Your task to perform on an android device: Open the calendar app, open the side menu, and click the "Day" option Image 0: 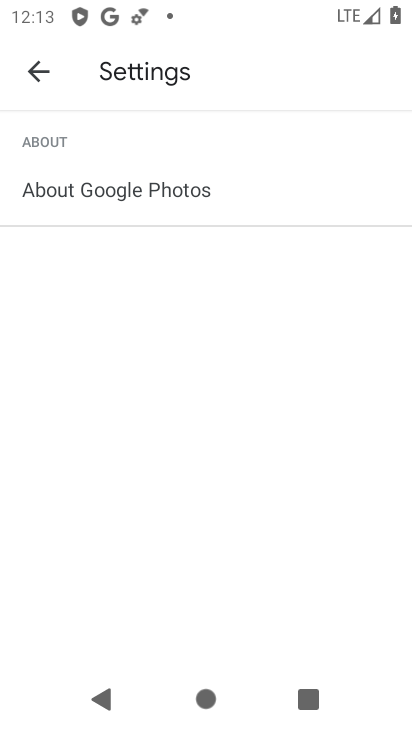
Step 0: press home button
Your task to perform on an android device: Open the calendar app, open the side menu, and click the "Day" option Image 1: 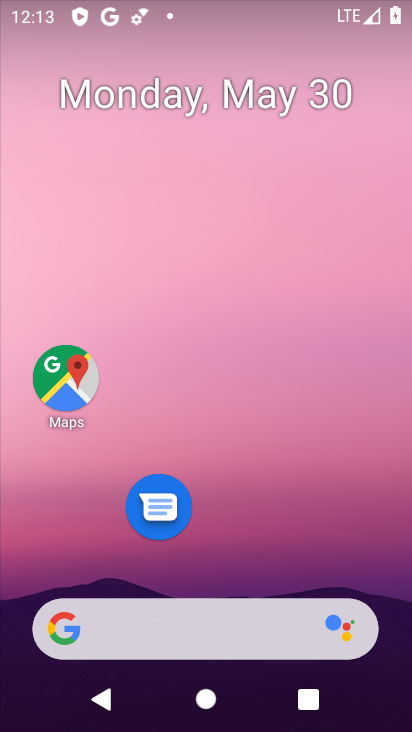
Step 1: drag from (297, 515) to (409, 432)
Your task to perform on an android device: Open the calendar app, open the side menu, and click the "Day" option Image 2: 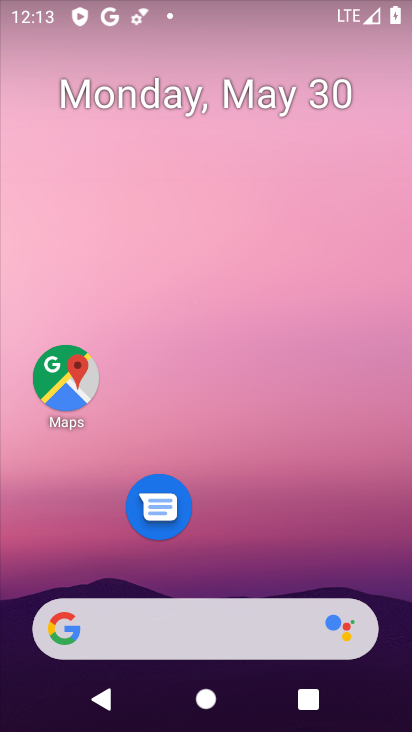
Step 2: drag from (264, 563) to (304, 68)
Your task to perform on an android device: Open the calendar app, open the side menu, and click the "Day" option Image 3: 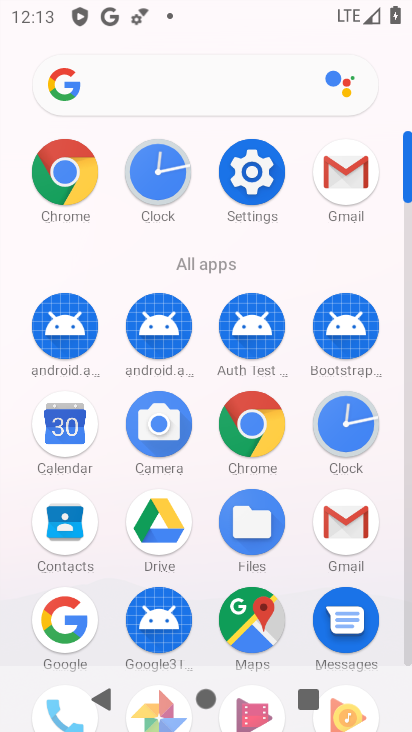
Step 3: click (61, 420)
Your task to perform on an android device: Open the calendar app, open the side menu, and click the "Day" option Image 4: 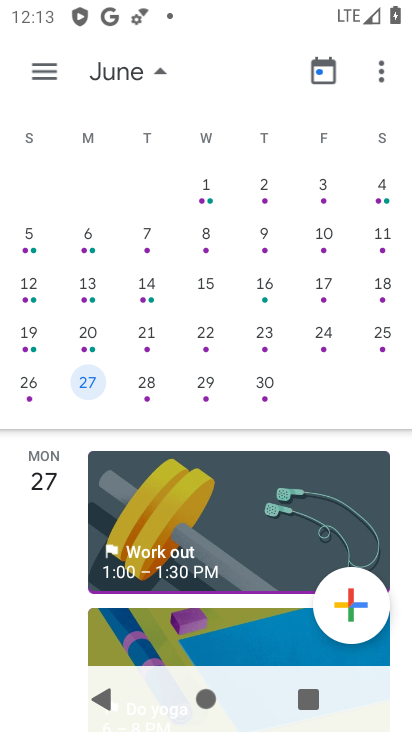
Step 4: click (43, 69)
Your task to perform on an android device: Open the calendar app, open the side menu, and click the "Day" option Image 5: 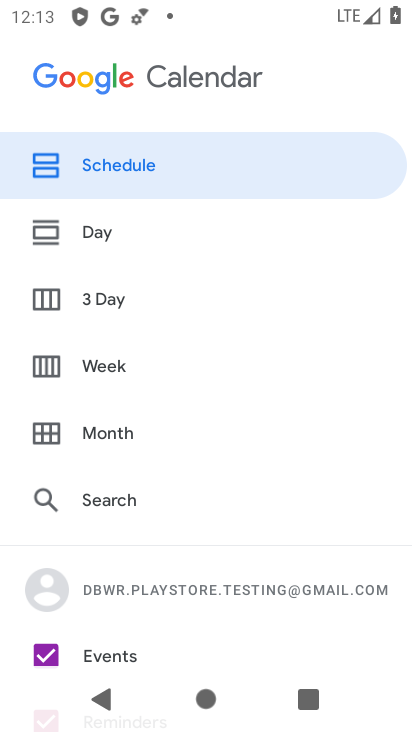
Step 5: click (104, 233)
Your task to perform on an android device: Open the calendar app, open the side menu, and click the "Day" option Image 6: 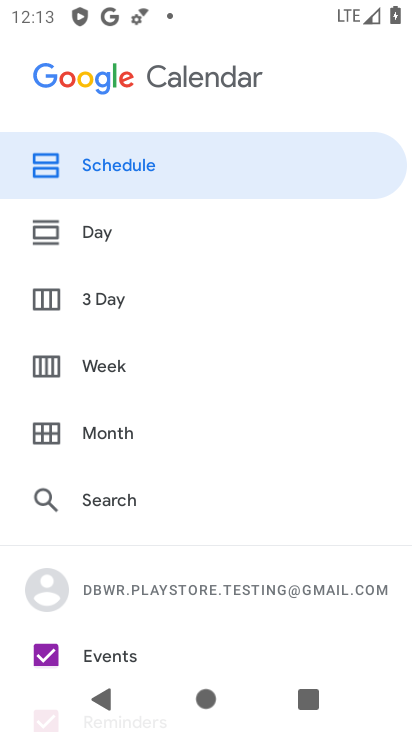
Step 6: click (86, 229)
Your task to perform on an android device: Open the calendar app, open the side menu, and click the "Day" option Image 7: 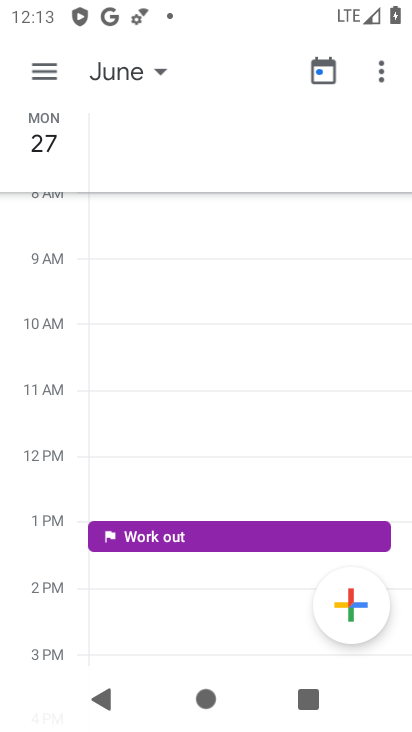
Step 7: task complete